Your task to perform on an android device: turn on showing notifications on the lock screen Image 0: 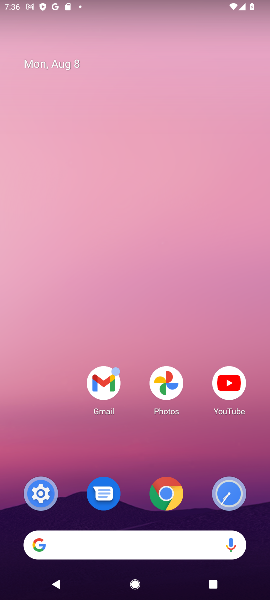
Step 0: click (44, 495)
Your task to perform on an android device: turn on showing notifications on the lock screen Image 1: 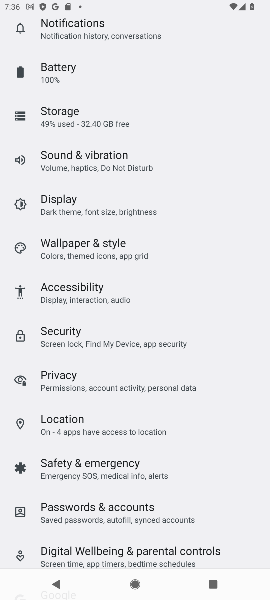
Step 1: click (75, 30)
Your task to perform on an android device: turn on showing notifications on the lock screen Image 2: 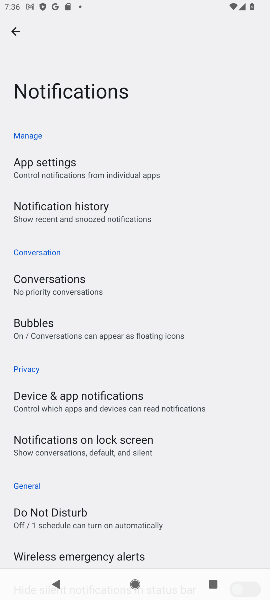
Step 2: click (129, 452)
Your task to perform on an android device: turn on showing notifications on the lock screen Image 3: 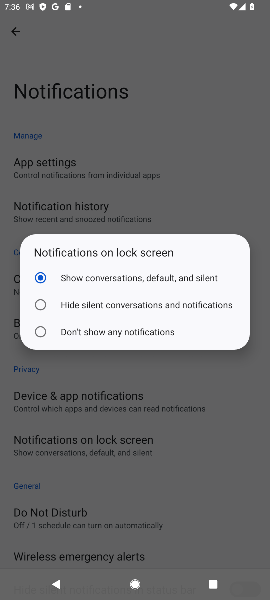
Step 3: click (75, 282)
Your task to perform on an android device: turn on showing notifications on the lock screen Image 4: 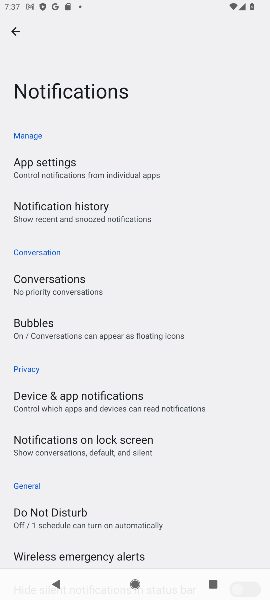
Step 4: task complete